Your task to perform on an android device: Find coffee shops on Maps Image 0: 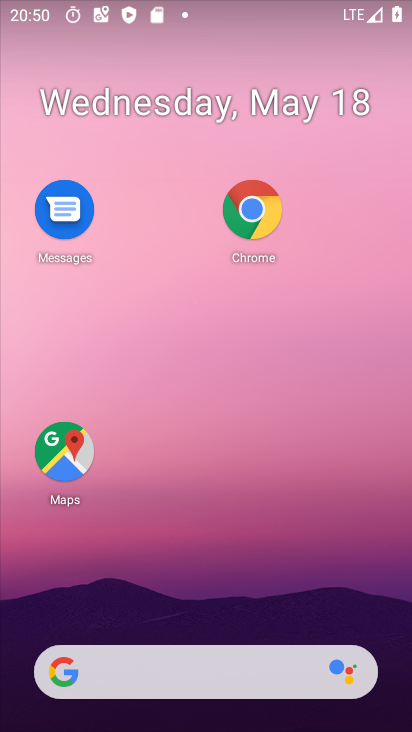
Step 0: click (59, 448)
Your task to perform on an android device: Find coffee shops on Maps Image 1: 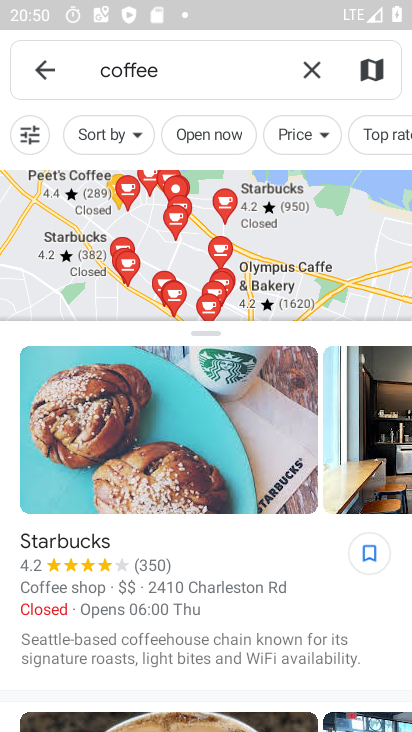
Step 1: task complete